Your task to perform on an android device: Search for sushi restaurants on Maps Image 0: 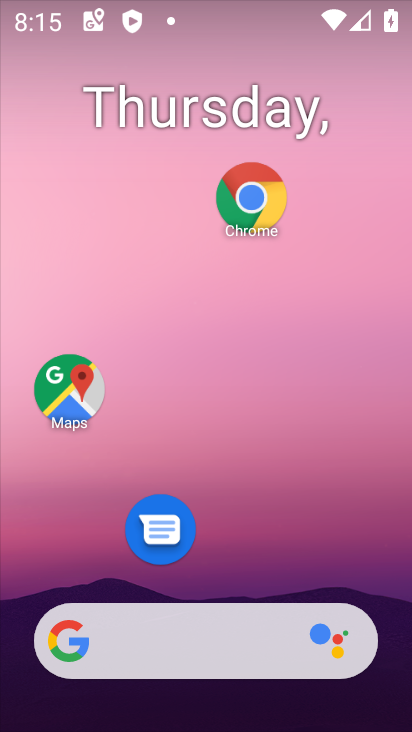
Step 0: click (87, 396)
Your task to perform on an android device: Search for sushi restaurants on Maps Image 1: 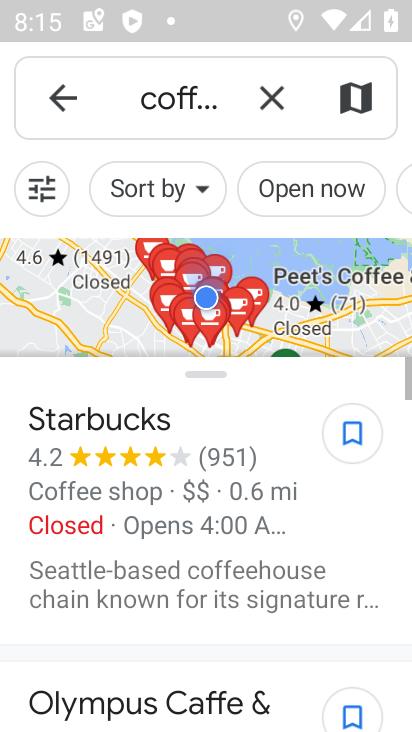
Step 1: click (67, 397)
Your task to perform on an android device: Search for sushi restaurants on Maps Image 2: 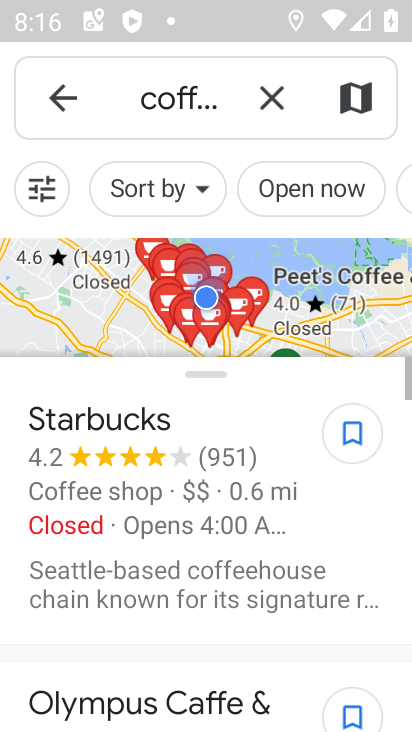
Step 2: click (282, 104)
Your task to perform on an android device: Search for sushi restaurants on Maps Image 3: 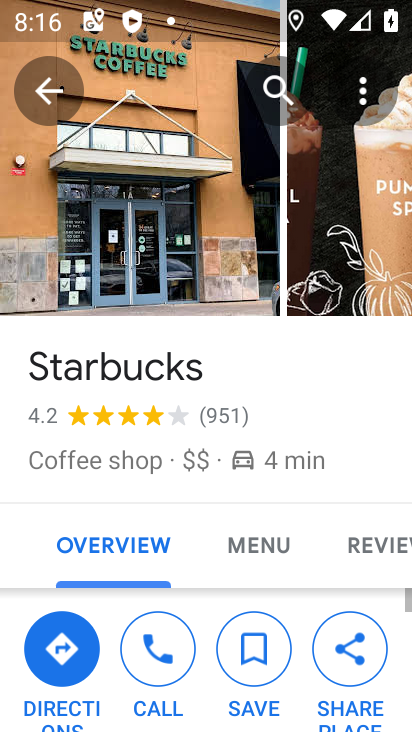
Step 3: press back button
Your task to perform on an android device: Search for sushi restaurants on Maps Image 4: 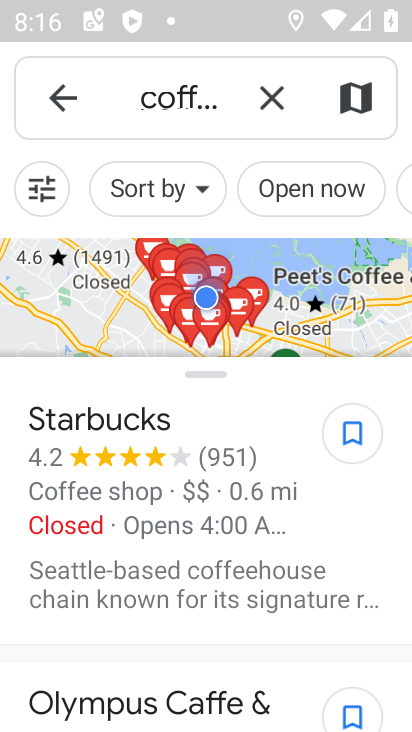
Step 4: click (269, 103)
Your task to perform on an android device: Search for sushi restaurants on Maps Image 5: 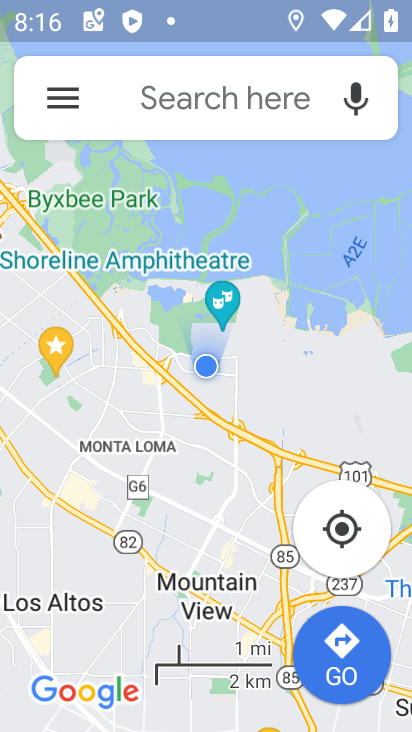
Step 5: click (188, 106)
Your task to perform on an android device: Search for sushi restaurants on Maps Image 6: 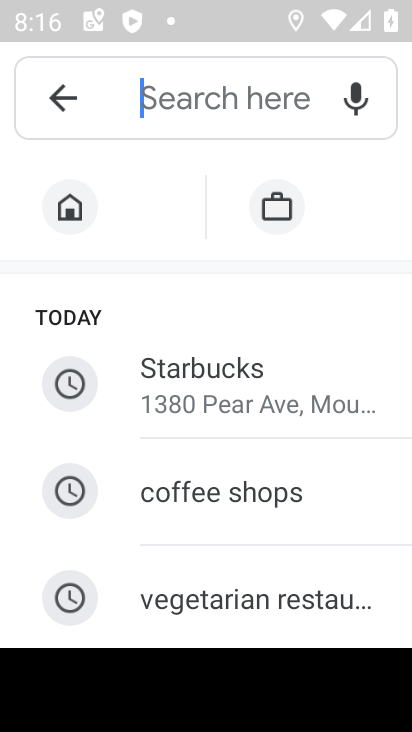
Step 6: drag from (190, 599) to (186, 283)
Your task to perform on an android device: Search for sushi restaurants on Maps Image 7: 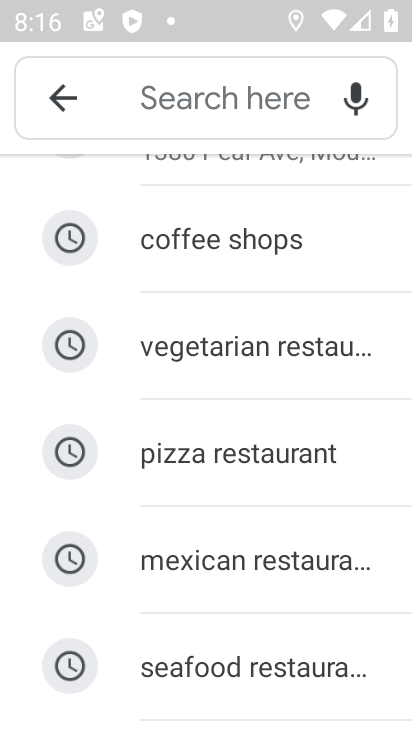
Step 7: drag from (223, 585) to (225, 237)
Your task to perform on an android device: Search for sushi restaurants on Maps Image 8: 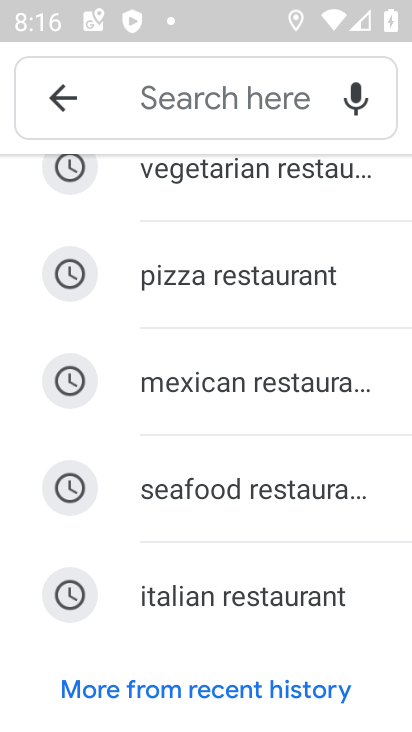
Step 8: drag from (191, 526) to (189, 594)
Your task to perform on an android device: Search for sushi restaurants on Maps Image 9: 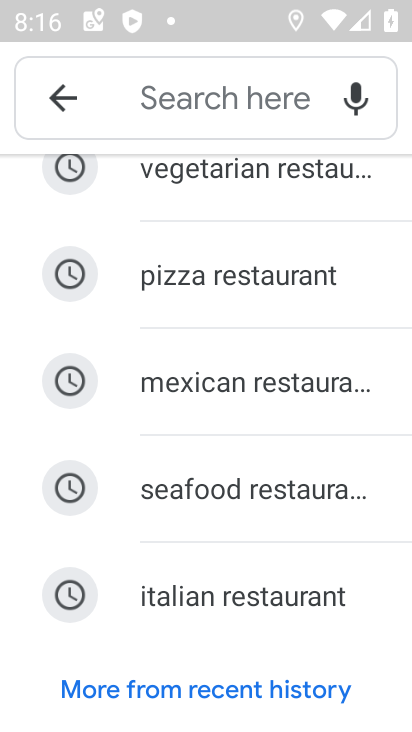
Step 9: drag from (212, 278) to (197, 581)
Your task to perform on an android device: Search for sushi restaurants on Maps Image 10: 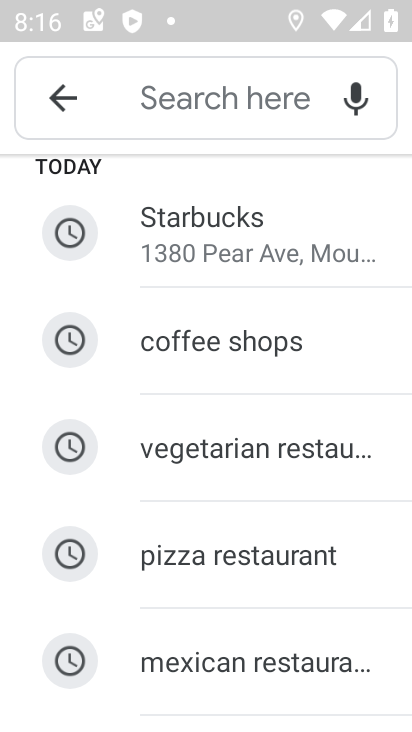
Step 10: click (184, 100)
Your task to perform on an android device: Search for sushi restaurants on Maps Image 11: 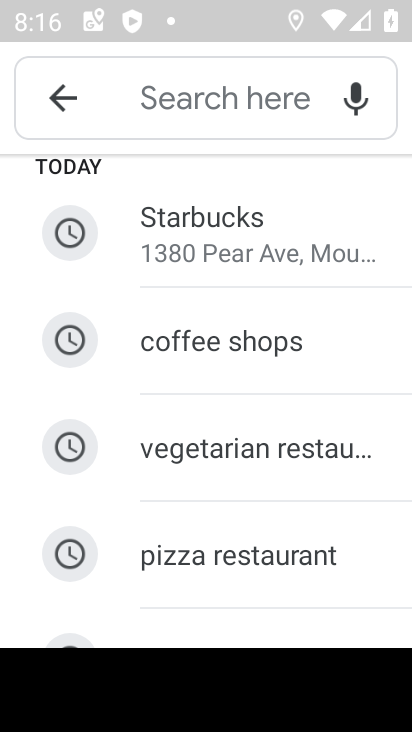
Step 11: type "sushi restaurants"
Your task to perform on an android device: Search for sushi restaurants on Maps Image 12: 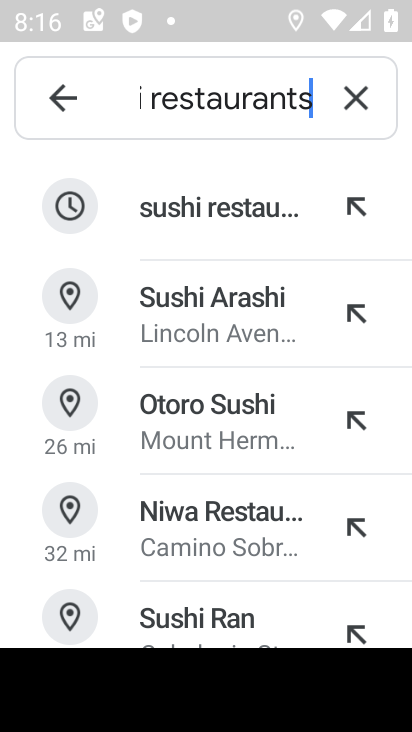
Step 12: click (198, 226)
Your task to perform on an android device: Search for sushi restaurants on Maps Image 13: 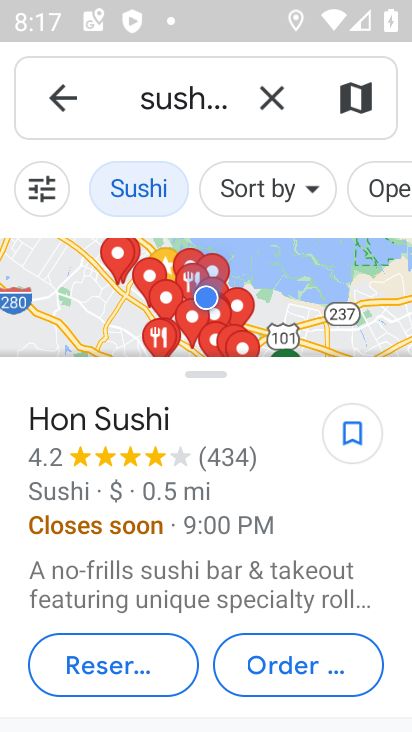
Step 13: task complete